Your task to perform on an android device: stop showing notifications on the lock screen Image 0: 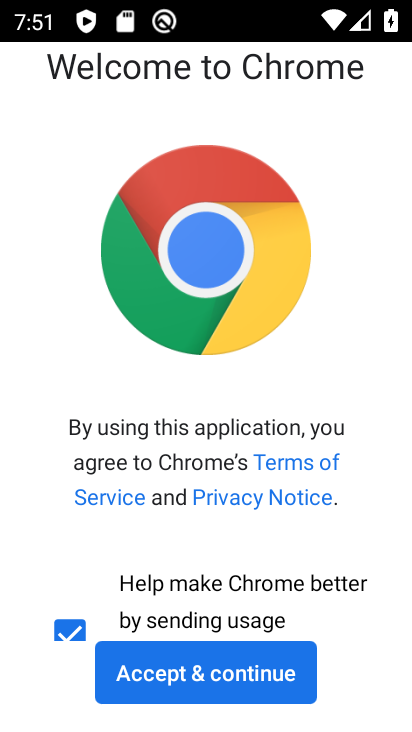
Step 0: click (161, 687)
Your task to perform on an android device: stop showing notifications on the lock screen Image 1: 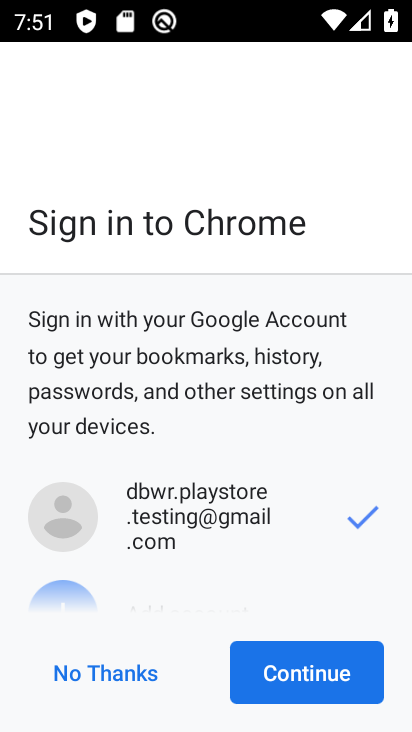
Step 1: click (294, 677)
Your task to perform on an android device: stop showing notifications on the lock screen Image 2: 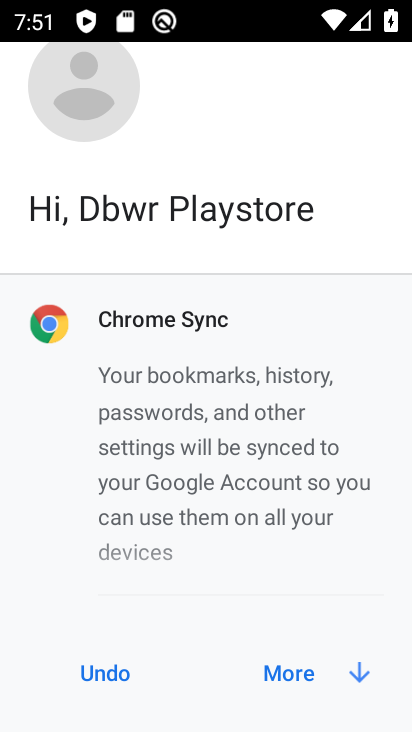
Step 2: click (317, 679)
Your task to perform on an android device: stop showing notifications on the lock screen Image 3: 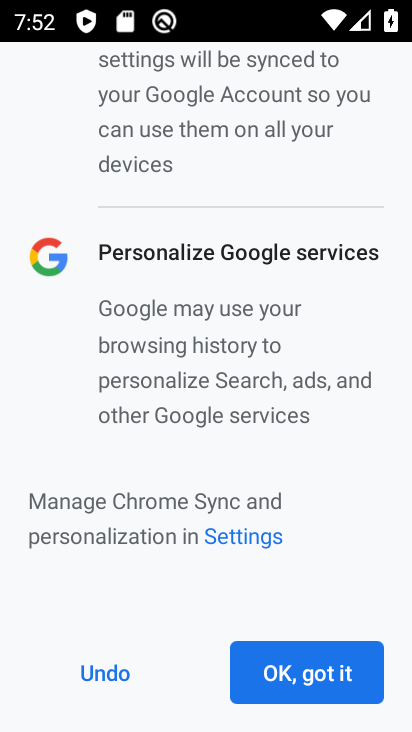
Step 3: click (317, 679)
Your task to perform on an android device: stop showing notifications on the lock screen Image 4: 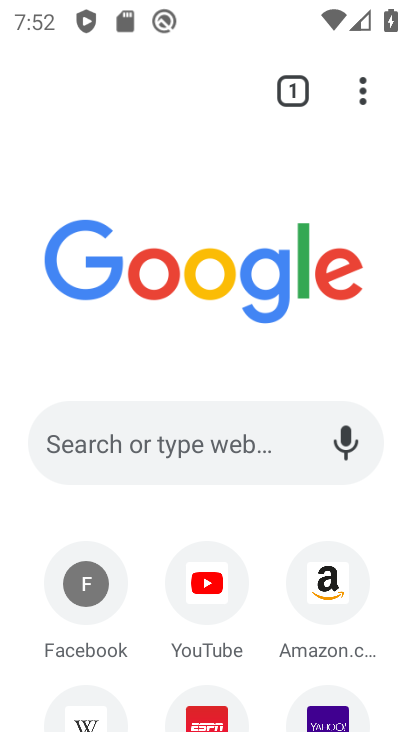
Step 4: drag from (360, 81) to (108, 557)
Your task to perform on an android device: stop showing notifications on the lock screen Image 5: 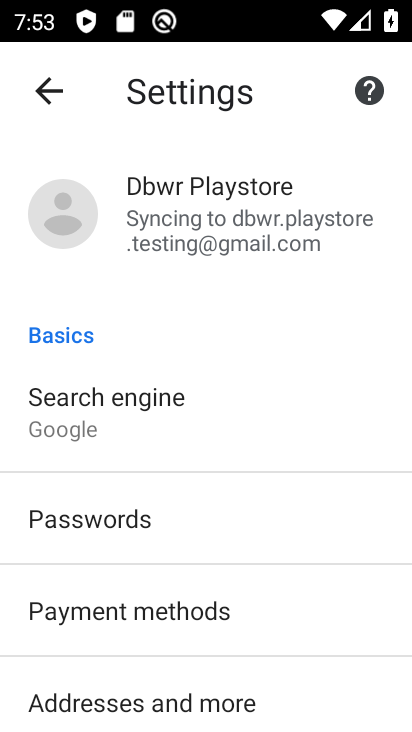
Step 5: drag from (199, 620) to (185, 359)
Your task to perform on an android device: stop showing notifications on the lock screen Image 6: 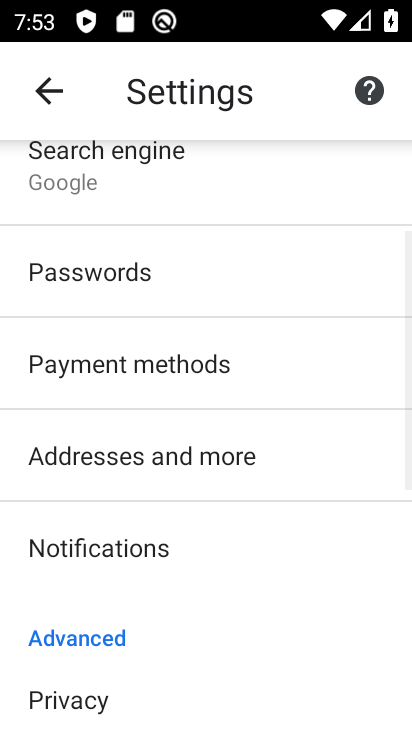
Step 6: click (55, 559)
Your task to perform on an android device: stop showing notifications on the lock screen Image 7: 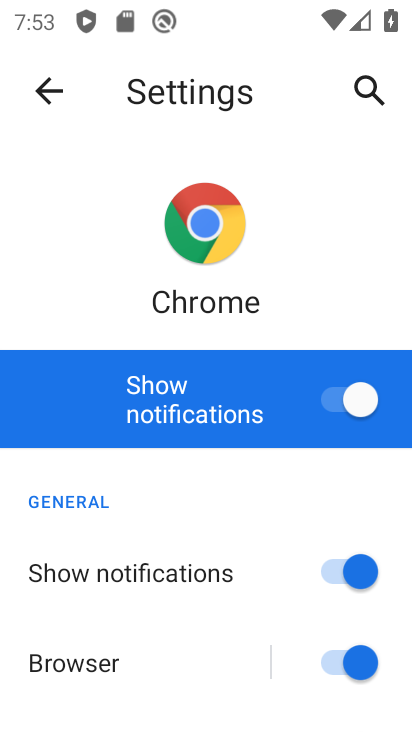
Step 7: click (48, 84)
Your task to perform on an android device: stop showing notifications on the lock screen Image 8: 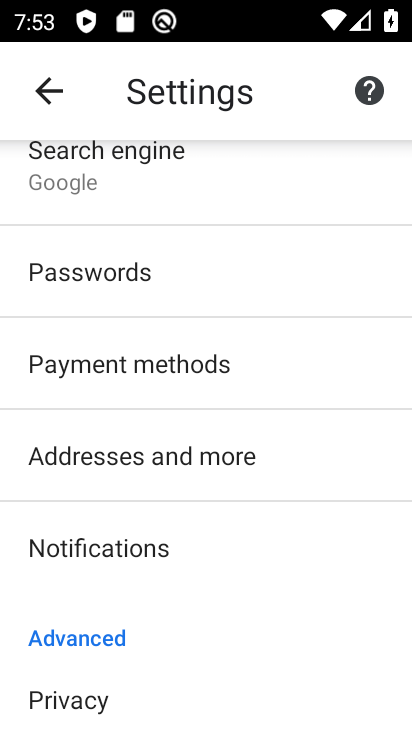
Step 8: press home button
Your task to perform on an android device: stop showing notifications on the lock screen Image 9: 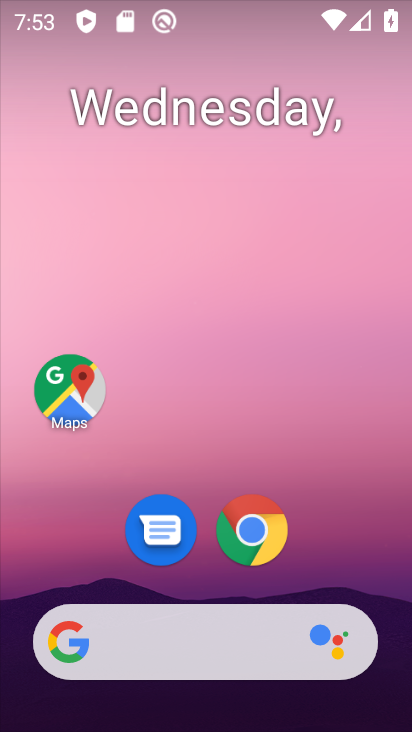
Step 9: drag from (172, 568) to (269, 43)
Your task to perform on an android device: stop showing notifications on the lock screen Image 10: 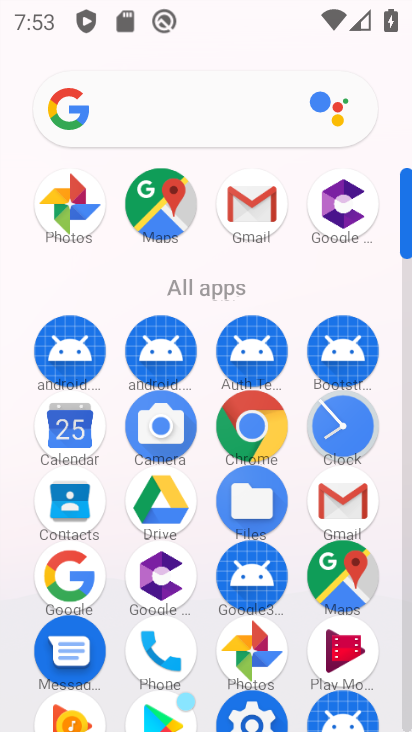
Step 10: click (246, 718)
Your task to perform on an android device: stop showing notifications on the lock screen Image 11: 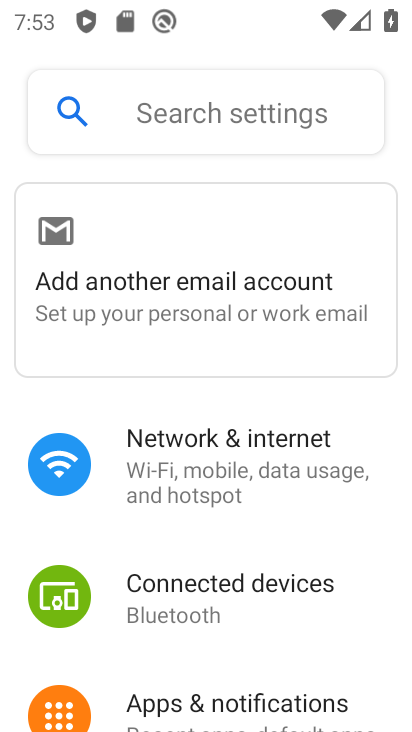
Step 11: drag from (224, 673) to (281, 392)
Your task to perform on an android device: stop showing notifications on the lock screen Image 12: 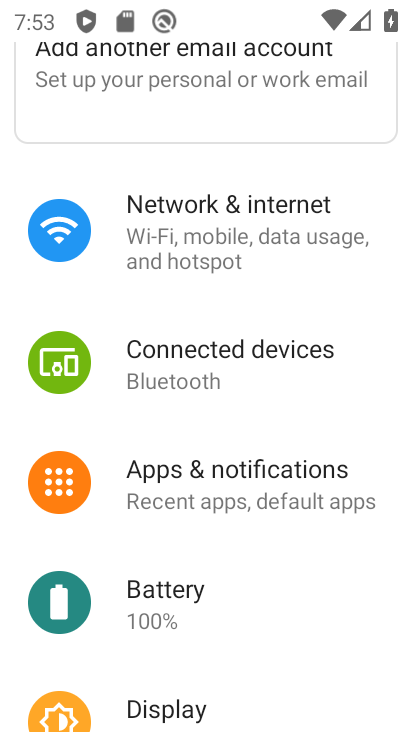
Step 12: click (211, 473)
Your task to perform on an android device: stop showing notifications on the lock screen Image 13: 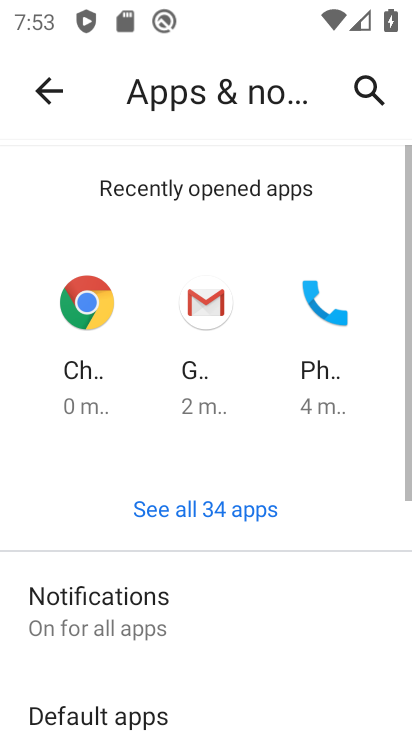
Step 13: drag from (111, 688) to (212, 251)
Your task to perform on an android device: stop showing notifications on the lock screen Image 14: 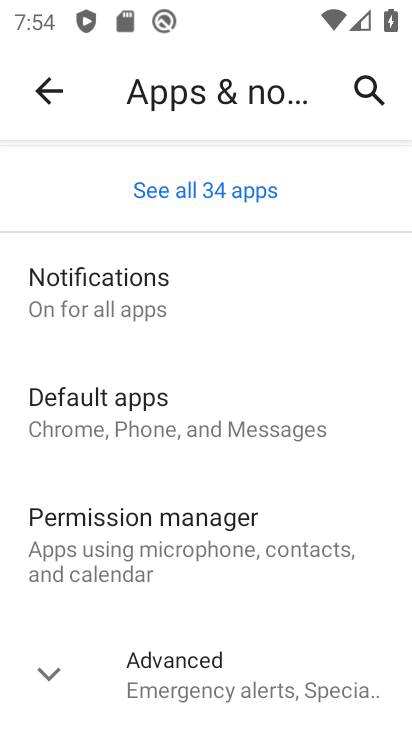
Step 14: click (135, 285)
Your task to perform on an android device: stop showing notifications on the lock screen Image 15: 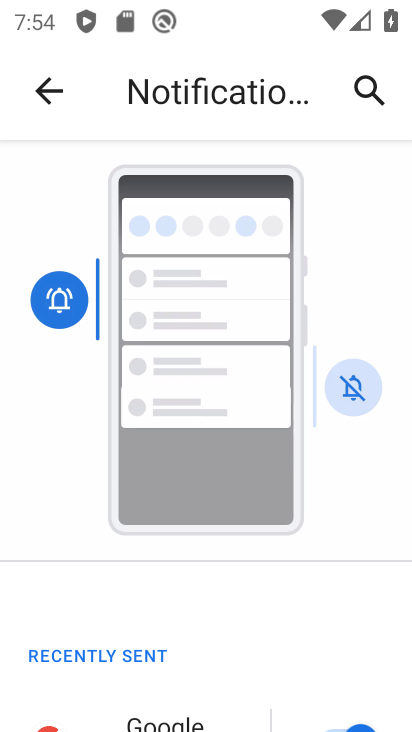
Step 15: drag from (156, 705) to (257, 124)
Your task to perform on an android device: stop showing notifications on the lock screen Image 16: 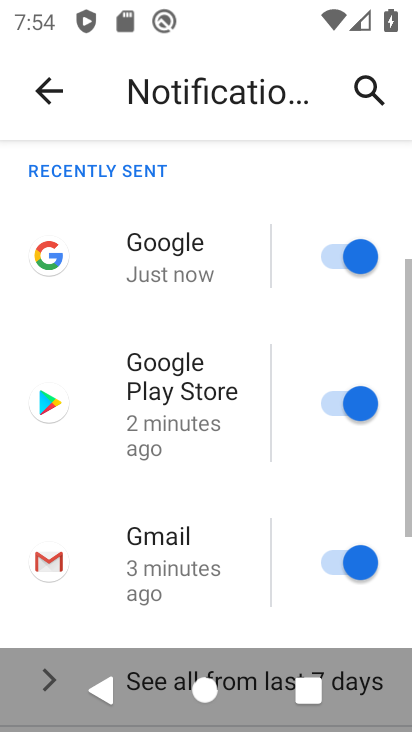
Step 16: drag from (183, 587) to (252, 62)
Your task to perform on an android device: stop showing notifications on the lock screen Image 17: 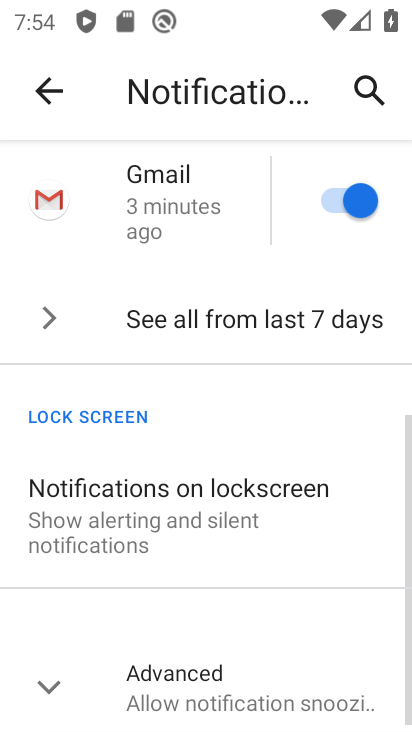
Step 17: click (120, 505)
Your task to perform on an android device: stop showing notifications on the lock screen Image 18: 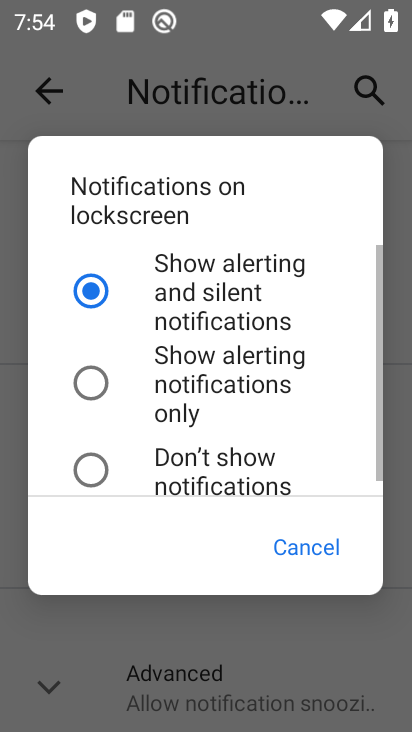
Step 18: click (97, 472)
Your task to perform on an android device: stop showing notifications on the lock screen Image 19: 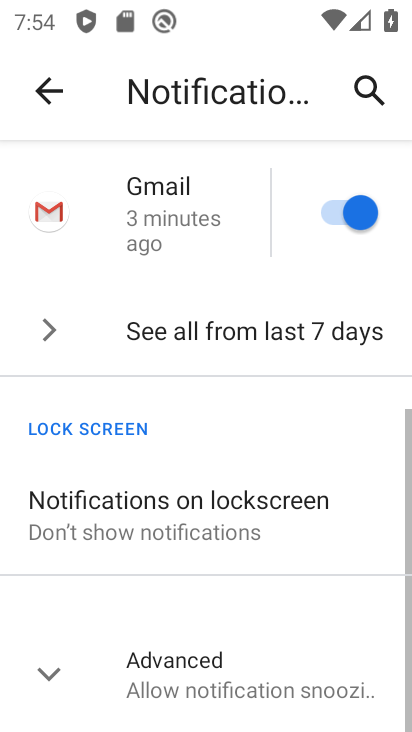
Step 19: task complete